Your task to perform on an android device: Go to ESPN.com Image 0: 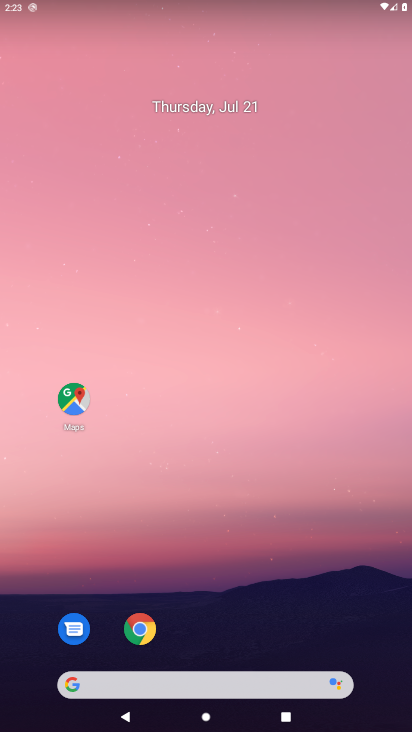
Step 0: click (112, 672)
Your task to perform on an android device: Go to ESPN.com Image 1: 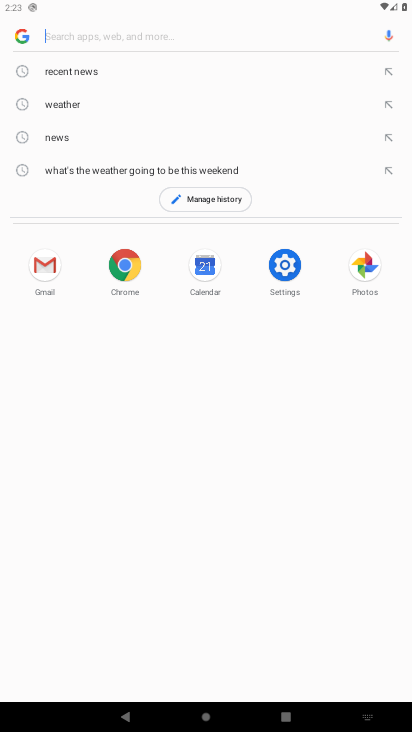
Step 1: type "ESPN.com"
Your task to perform on an android device: Go to ESPN.com Image 2: 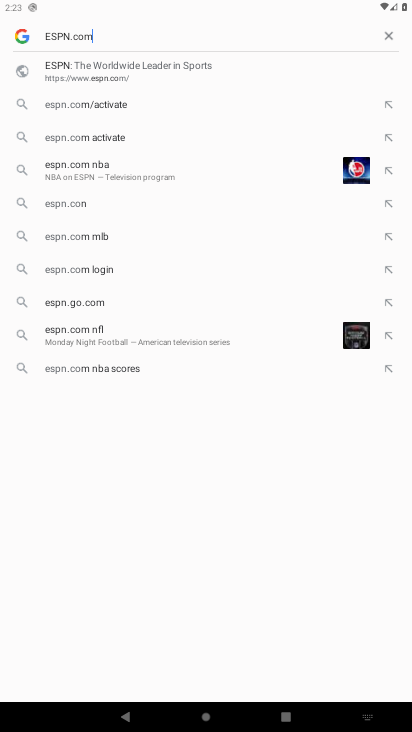
Step 2: type ""
Your task to perform on an android device: Go to ESPN.com Image 3: 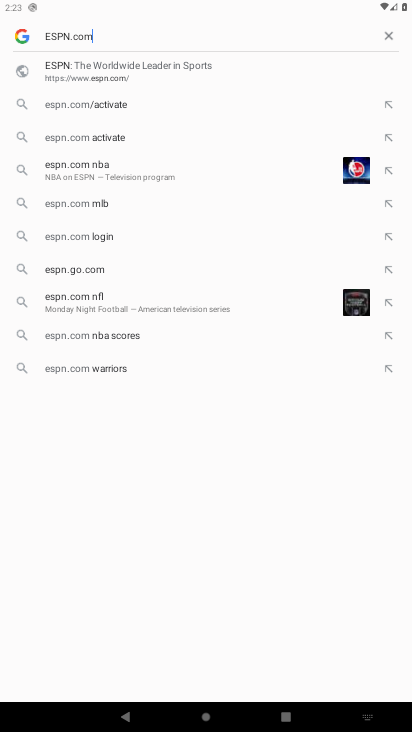
Step 3: click (55, 64)
Your task to perform on an android device: Go to ESPN.com Image 4: 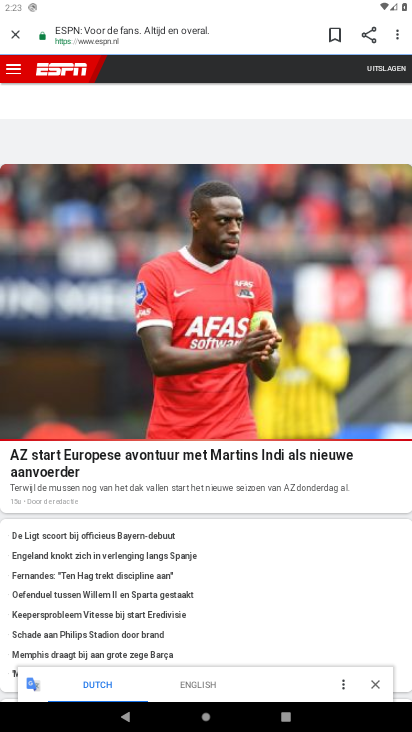
Step 4: task complete